Your task to perform on an android device: Open Wikipedia Image 0: 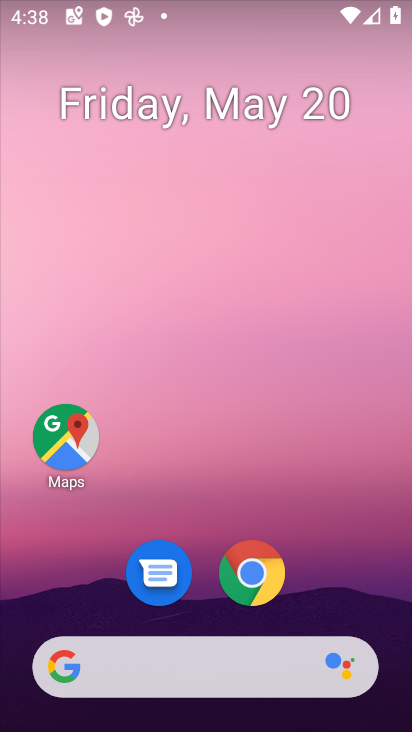
Step 0: click (252, 578)
Your task to perform on an android device: Open Wikipedia Image 1: 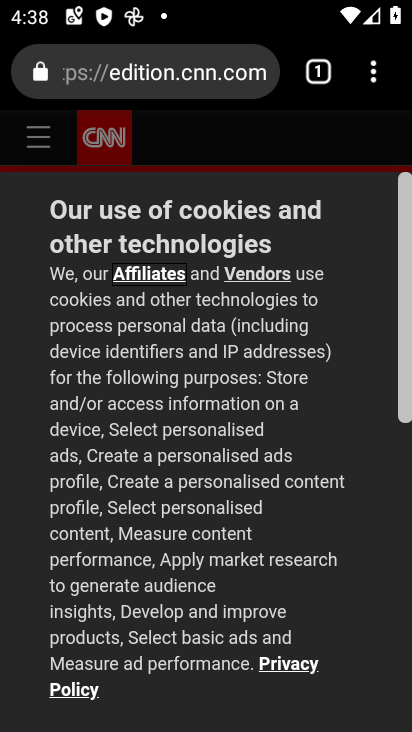
Step 1: click (168, 72)
Your task to perform on an android device: Open Wikipedia Image 2: 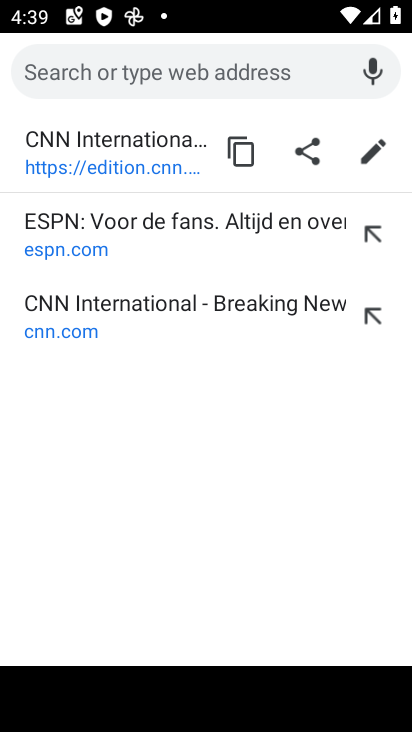
Step 2: type "wikipedia"
Your task to perform on an android device: Open Wikipedia Image 3: 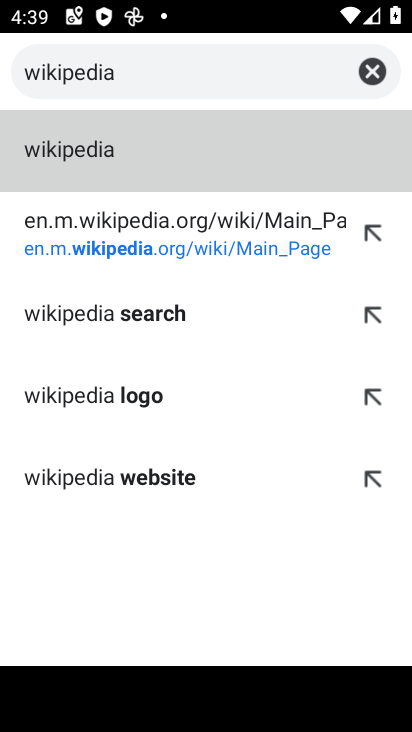
Step 3: click (72, 146)
Your task to perform on an android device: Open Wikipedia Image 4: 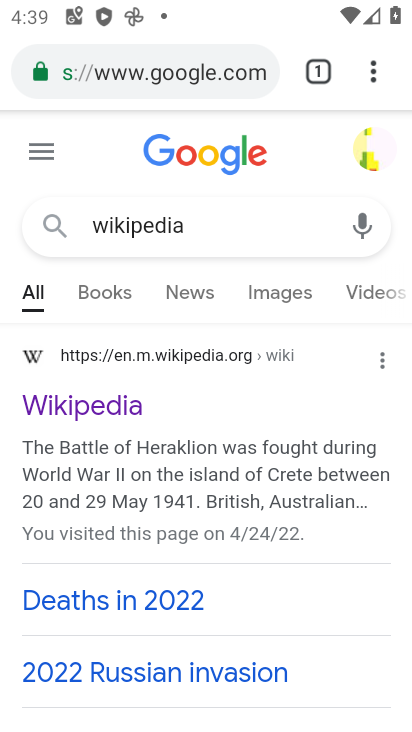
Step 4: click (72, 410)
Your task to perform on an android device: Open Wikipedia Image 5: 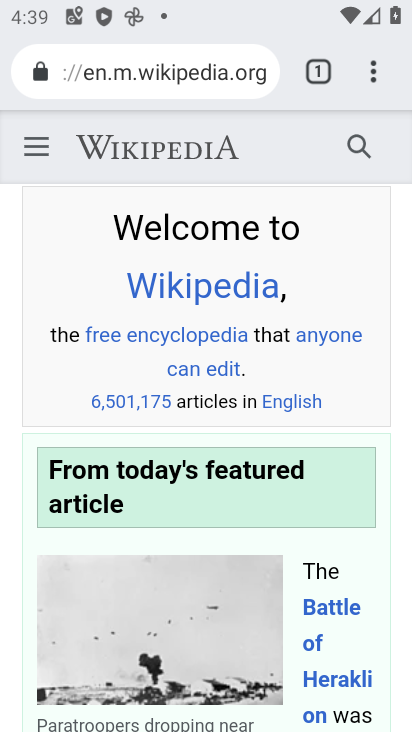
Step 5: task complete